Your task to perform on an android device: toggle data saver in the chrome app Image 0: 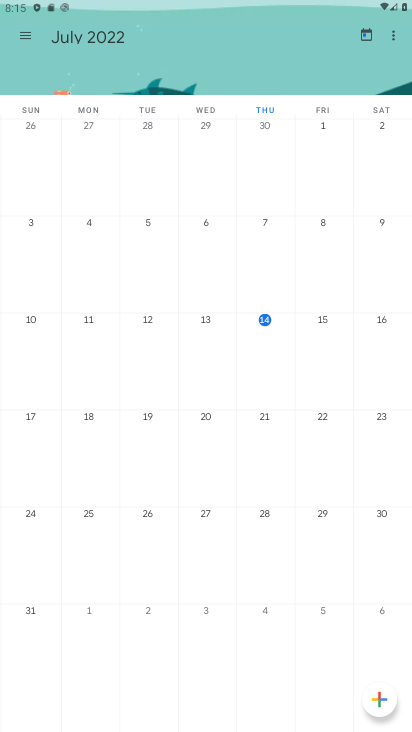
Step 0: press home button
Your task to perform on an android device: toggle data saver in the chrome app Image 1: 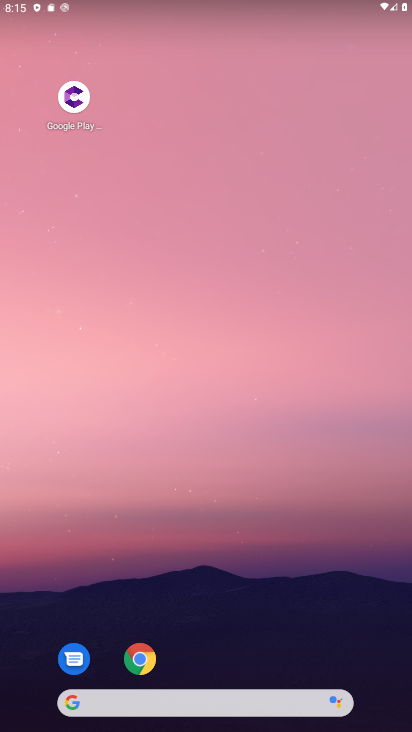
Step 1: click (124, 647)
Your task to perform on an android device: toggle data saver in the chrome app Image 2: 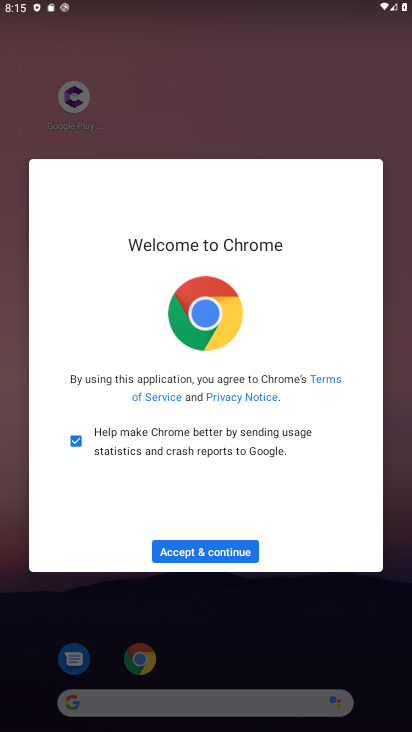
Step 2: click (201, 558)
Your task to perform on an android device: toggle data saver in the chrome app Image 3: 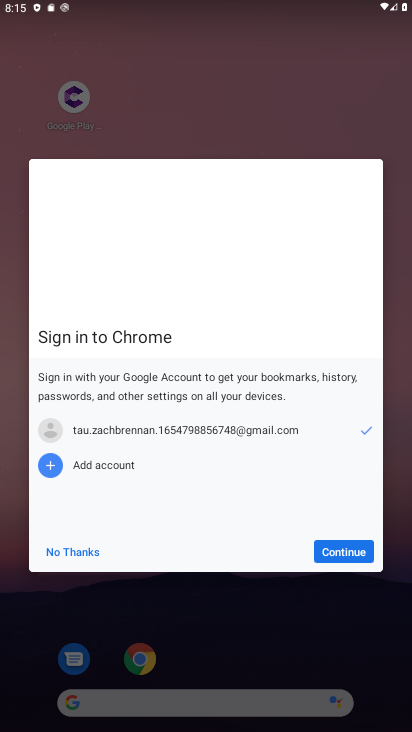
Step 3: click (336, 555)
Your task to perform on an android device: toggle data saver in the chrome app Image 4: 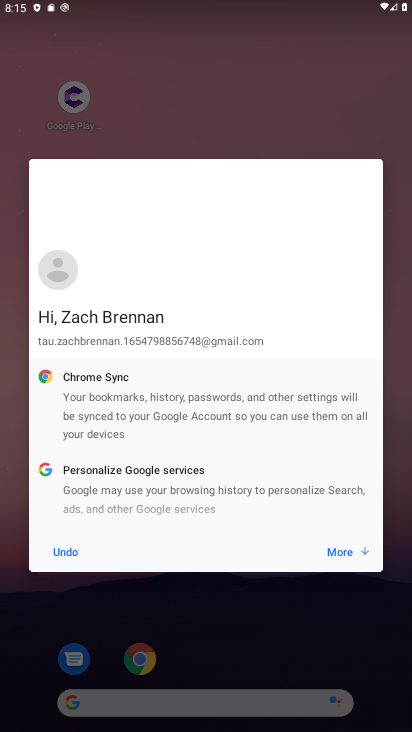
Step 4: click (336, 555)
Your task to perform on an android device: toggle data saver in the chrome app Image 5: 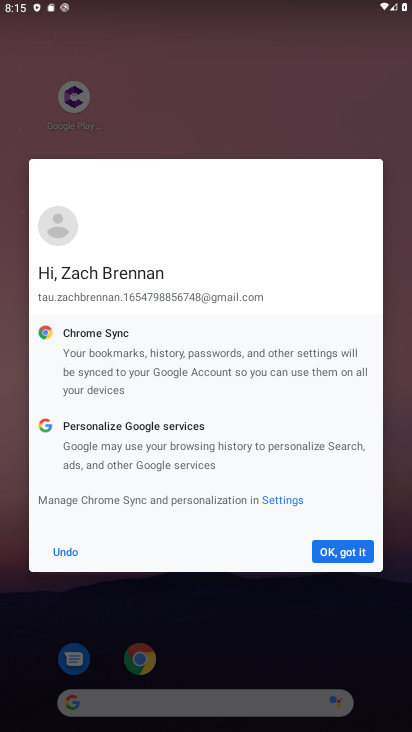
Step 5: click (336, 555)
Your task to perform on an android device: toggle data saver in the chrome app Image 6: 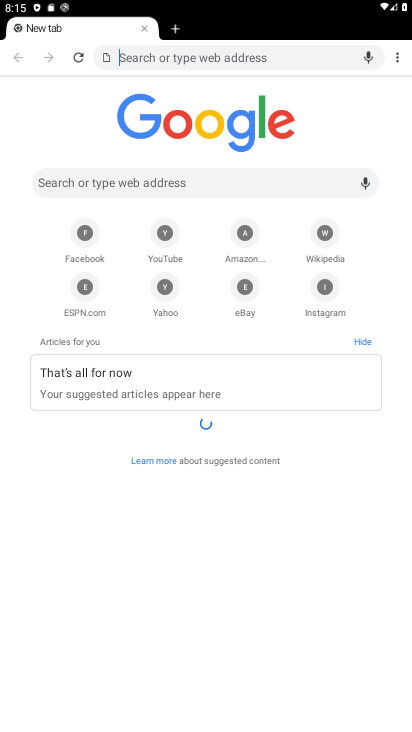
Step 6: drag from (394, 55) to (300, 262)
Your task to perform on an android device: toggle data saver in the chrome app Image 7: 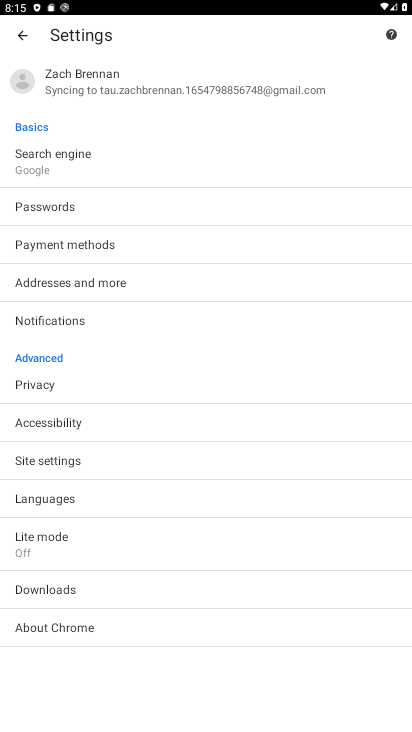
Step 7: click (41, 537)
Your task to perform on an android device: toggle data saver in the chrome app Image 8: 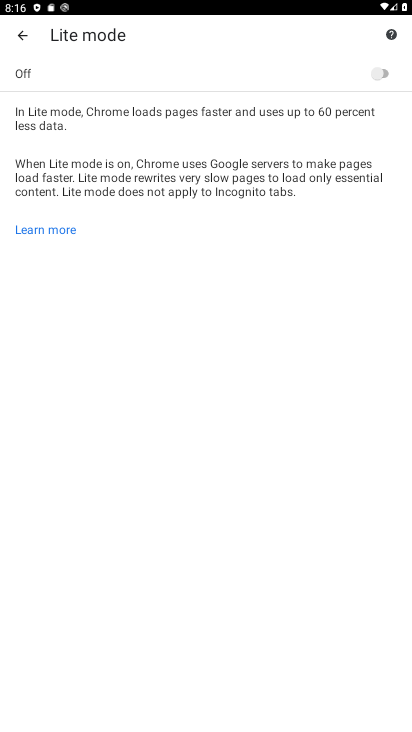
Step 8: click (381, 74)
Your task to perform on an android device: toggle data saver in the chrome app Image 9: 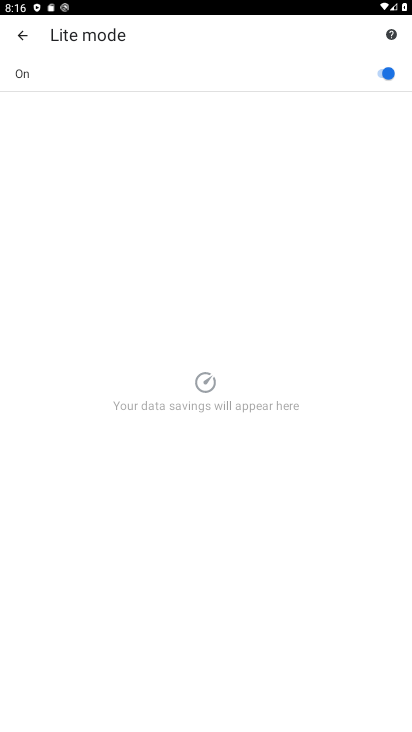
Step 9: task complete